Your task to perform on an android device: delete a single message in the gmail app Image 0: 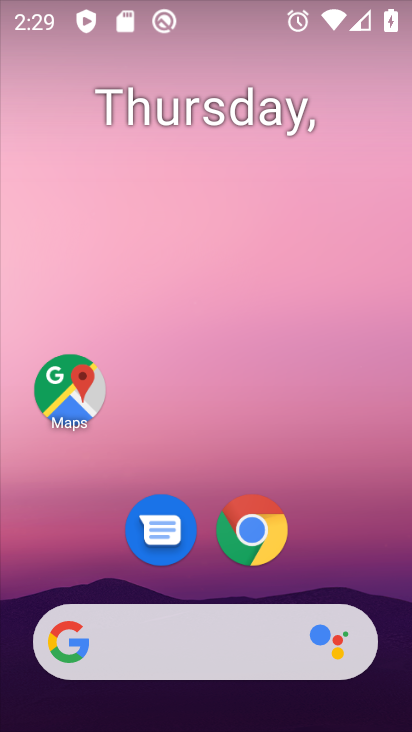
Step 0: click (211, 641)
Your task to perform on an android device: delete a single message in the gmail app Image 1: 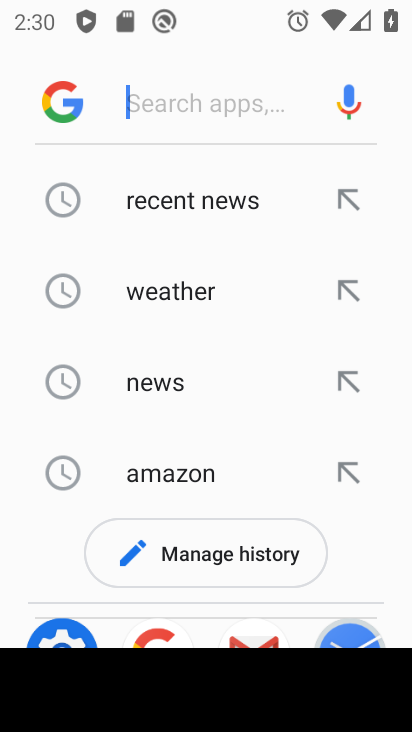
Step 1: press home button
Your task to perform on an android device: delete a single message in the gmail app Image 2: 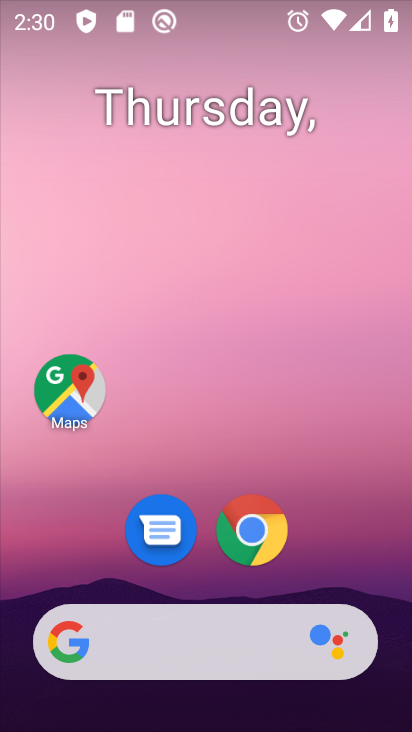
Step 2: drag from (250, 706) to (181, 163)
Your task to perform on an android device: delete a single message in the gmail app Image 3: 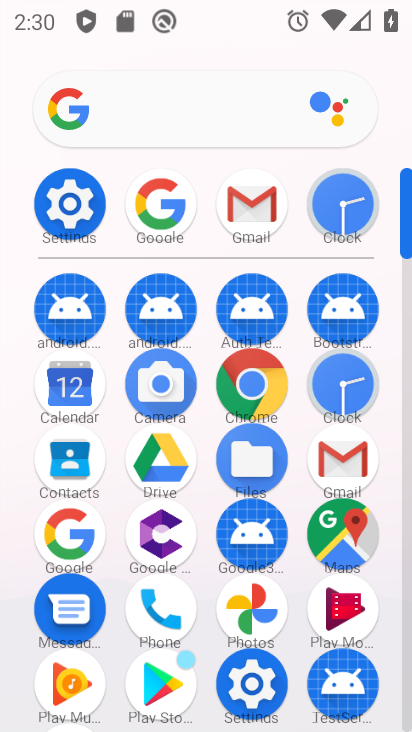
Step 3: click (333, 454)
Your task to perform on an android device: delete a single message in the gmail app Image 4: 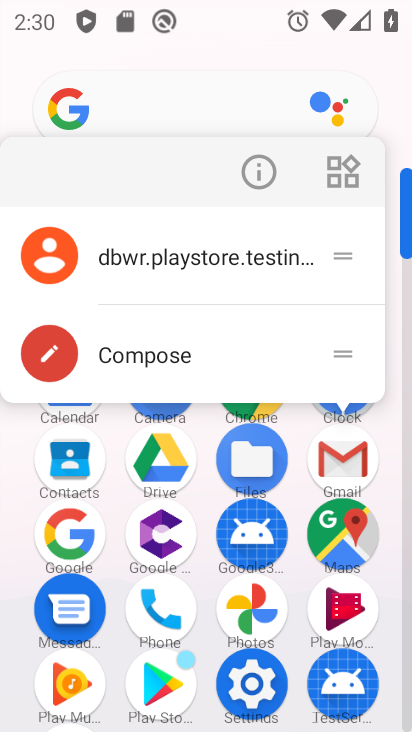
Step 4: click (325, 469)
Your task to perform on an android device: delete a single message in the gmail app Image 5: 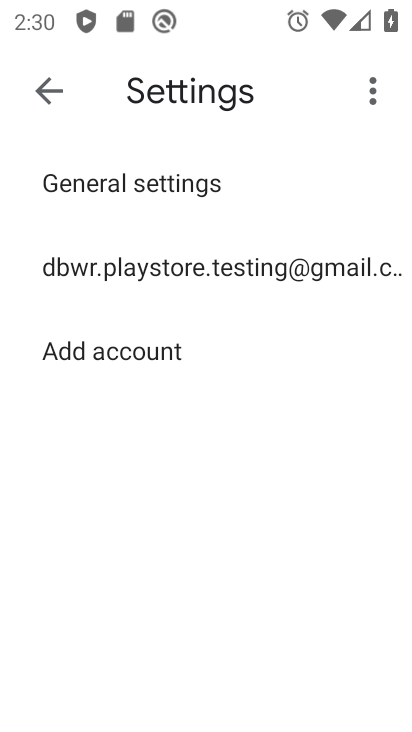
Step 5: click (241, 274)
Your task to perform on an android device: delete a single message in the gmail app Image 6: 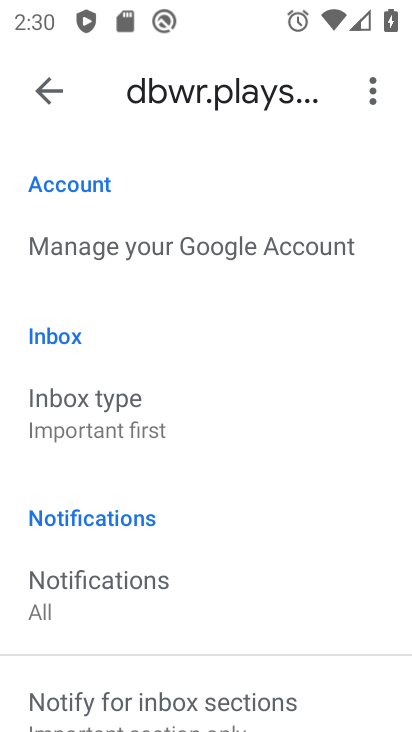
Step 6: click (60, 80)
Your task to perform on an android device: delete a single message in the gmail app Image 7: 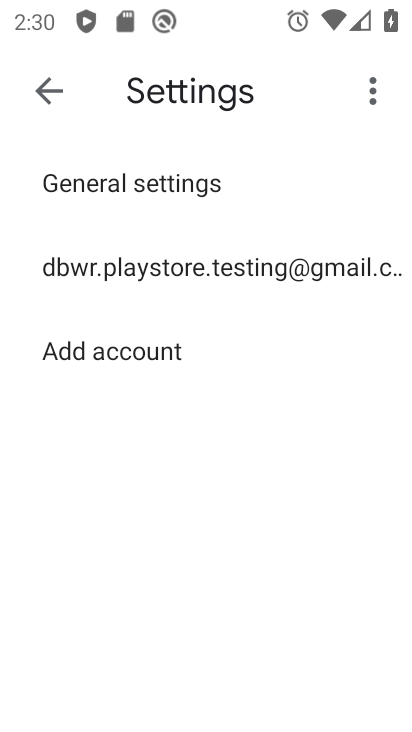
Step 7: click (45, 101)
Your task to perform on an android device: delete a single message in the gmail app Image 8: 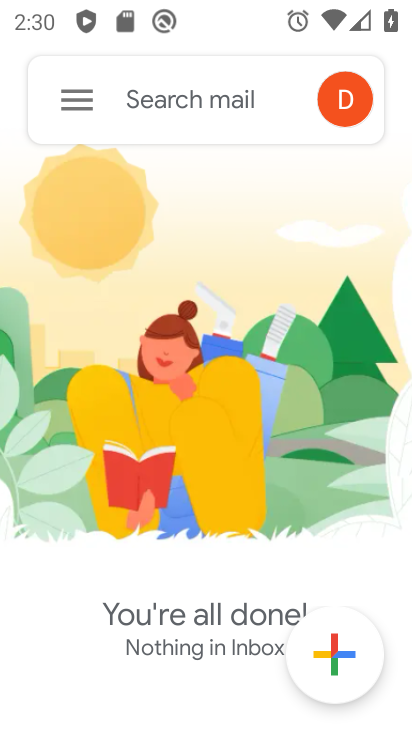
Step 8: task complete